Your task to perform on an android device: create a new album in the google photos Image 0: 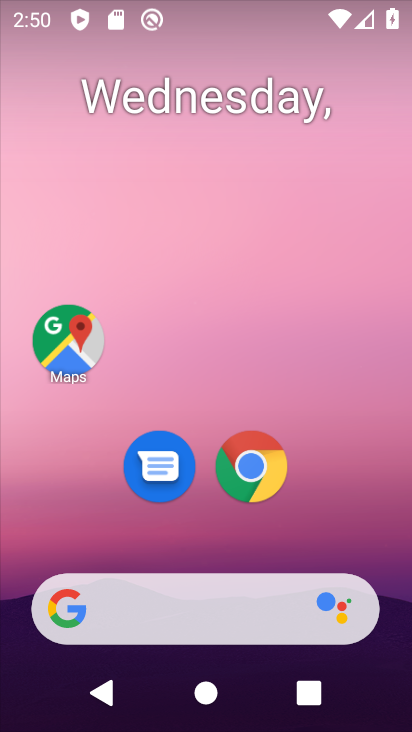
Step 0: drag from (235, 567) to (225, 89)
Your task to perform on an android device: create a new album in the google photos Image 1: 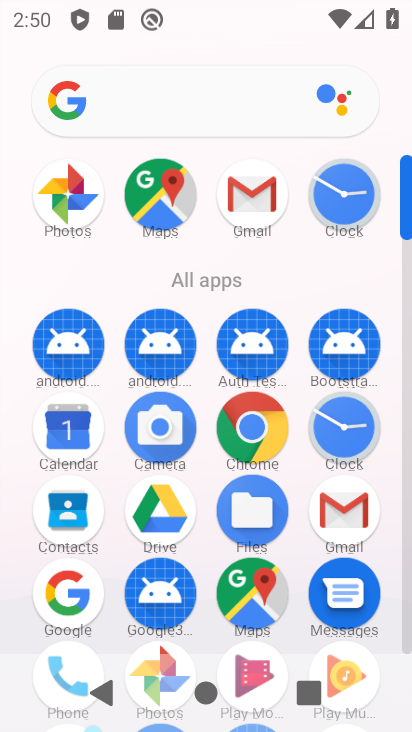
Step 1: click (167, 647)
Your task to perform on an android device: create a new album in the google photos Image 2: 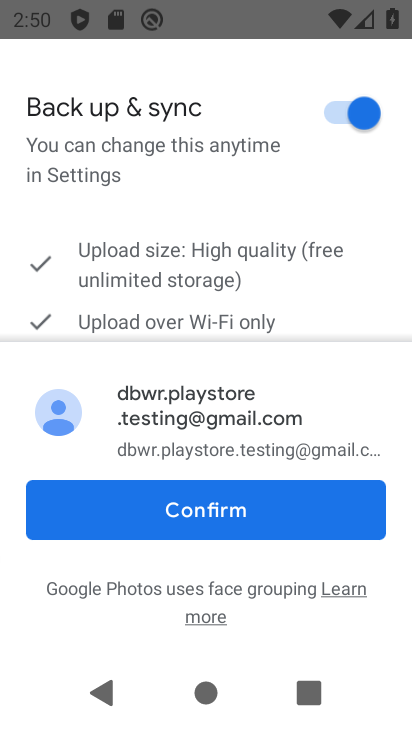
Step 2: click (201, 514)
Your task to perform on an android device: create a new album in the google photos Image 3: 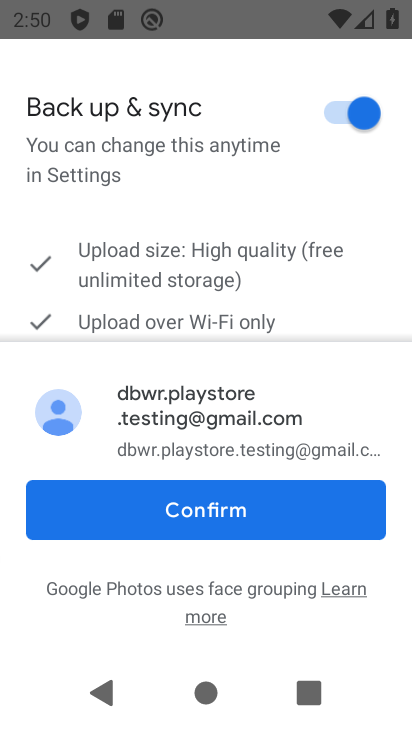
Step 3: click (202, 516)
Your task to perform on an android device: create a new album in the google photos Image 4: 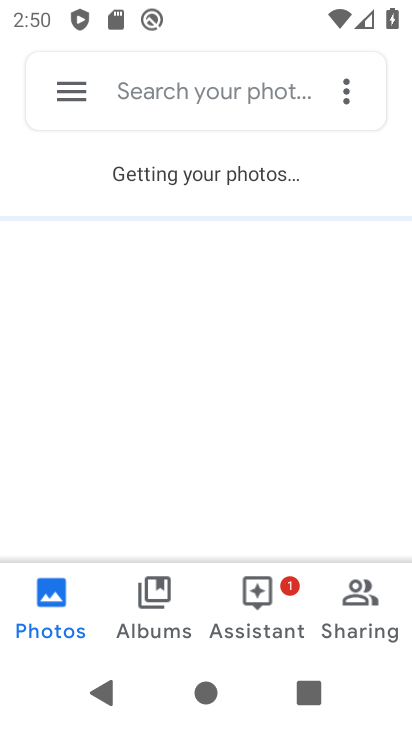
Step 4: click (54, 592)
Your task to perform on an android device: create a new album in the google photos Image 5: 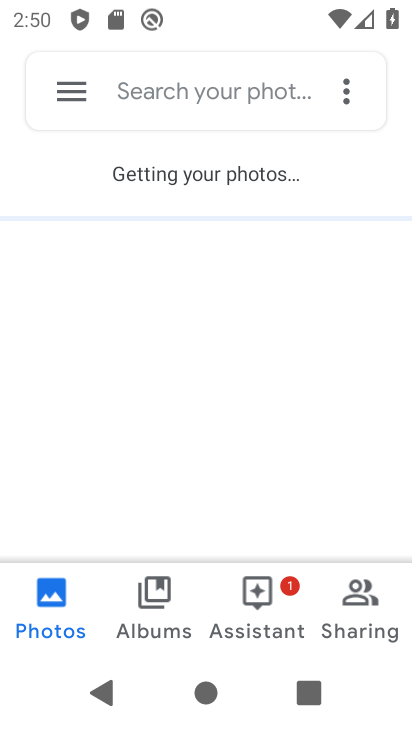
Step 5: click (129, 584)
Your task to perform on an android device: create a new album in the google photos Image 6: 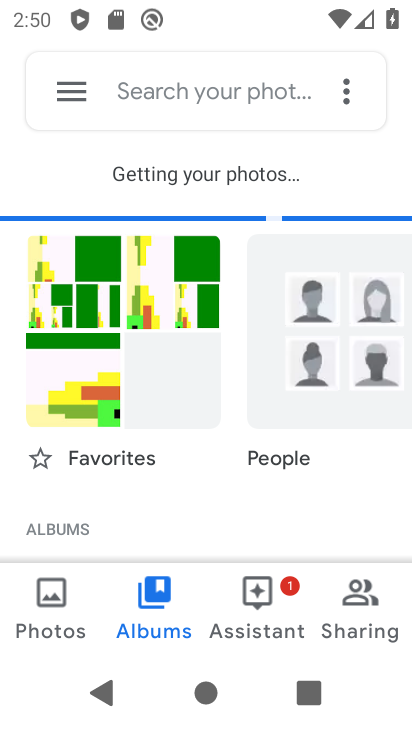
Step 6: click (59, 593)
Your task to perform on an android device: create a new album in the google photos Image 7: 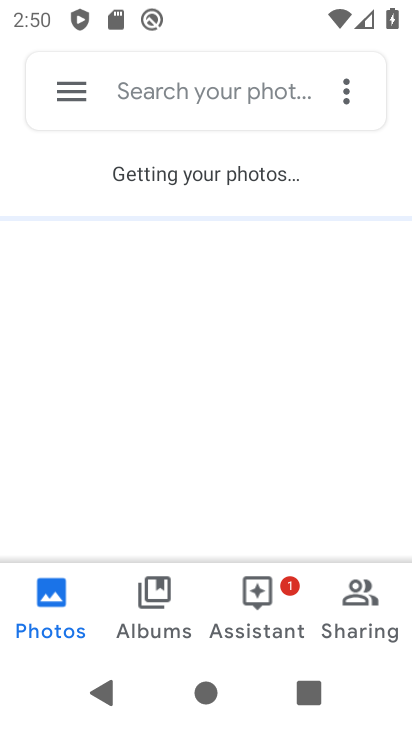
Step 7: task complete